Your task to perform on an android device: When is my next meeting? Image 0: 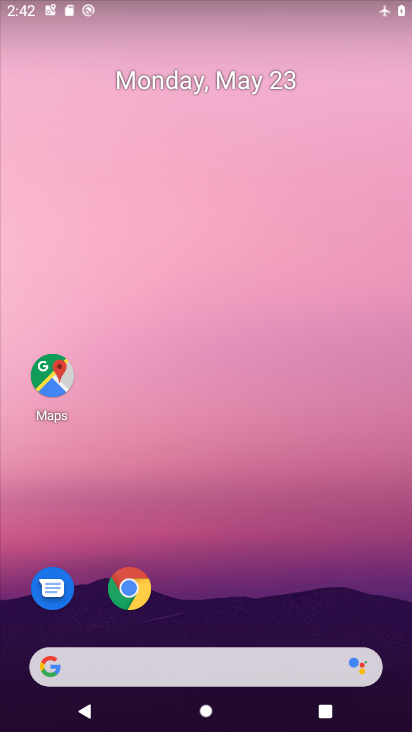
Step 0: drag from (160, 617) to (303, 125)
Your task to perform on an android device: When is my next meeting? Image 1: 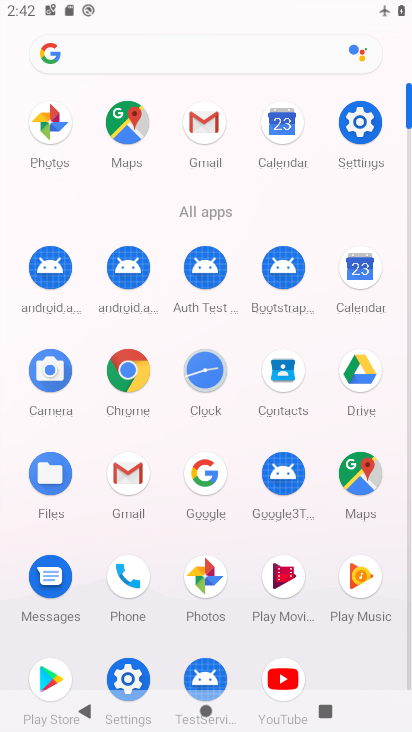
Step 1: click (369, 267)
Your task to perform on an android device: When is my next meeting? Image 2: 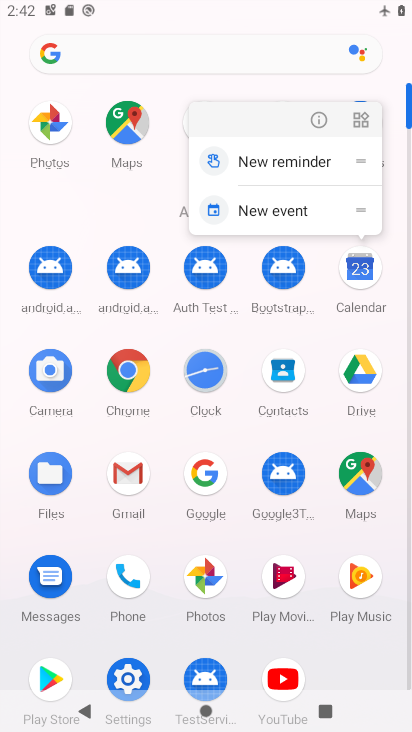
Step 2: click (318, 128)
Your task to perform on an android device: When is my next meeting? Image 3: 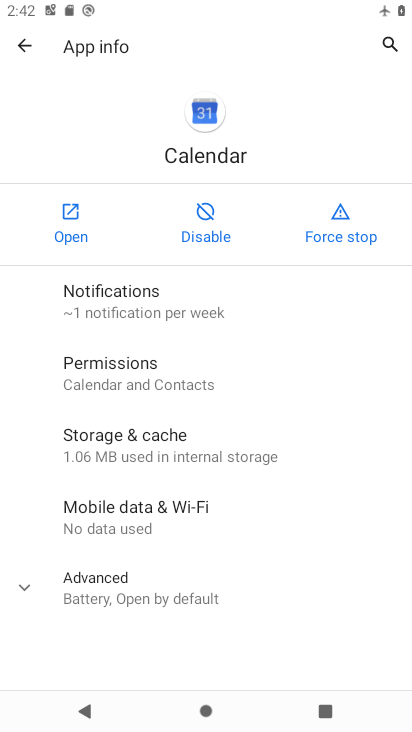
Step 3: click (67, 234)
Your task to perform on an android device: When is my next meeting? Image 4: 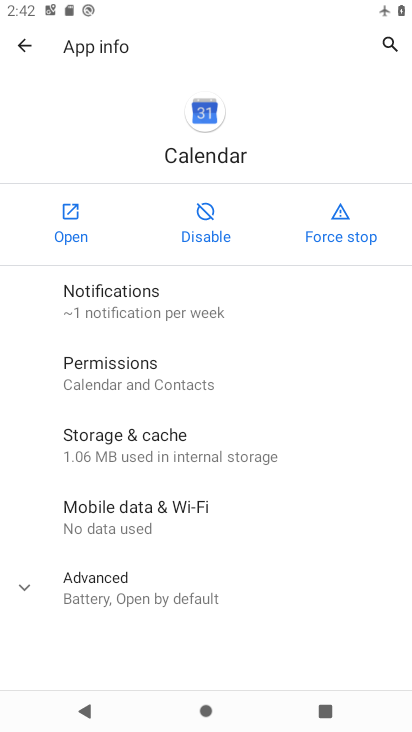
Step 4: click (69, 226)
Your task to perform on an android device: When is my next meeting? Image 5: 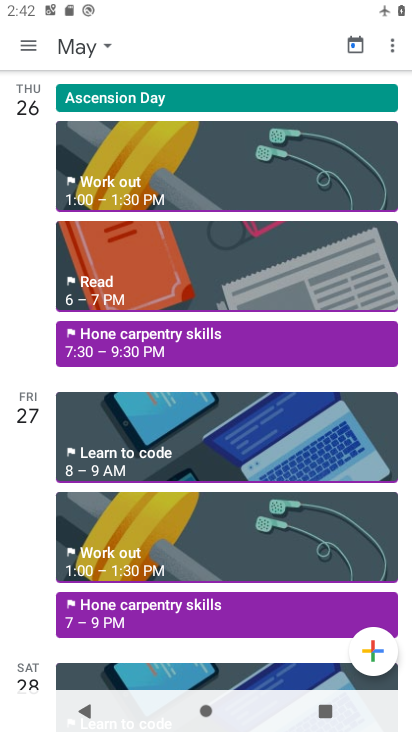
Step 5: click (86, 53)
Your task to perform on an android device: When is my next meeting? Image 6: 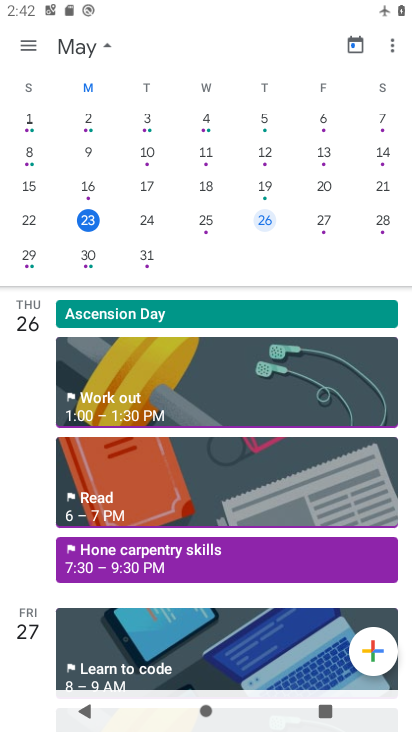
Step 6: click (93, 215)
Your task to perform on an android device: When is my next meeting? Image 7: 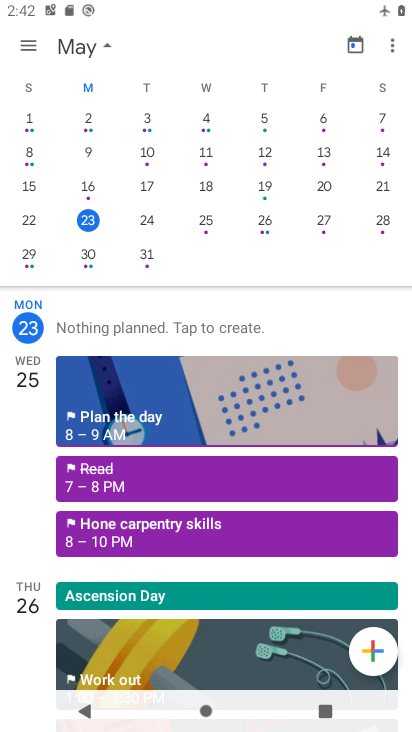
Step 7: task complete